Your task to perform on an android device: Add apple airpods to the cart on amazon Image 0: 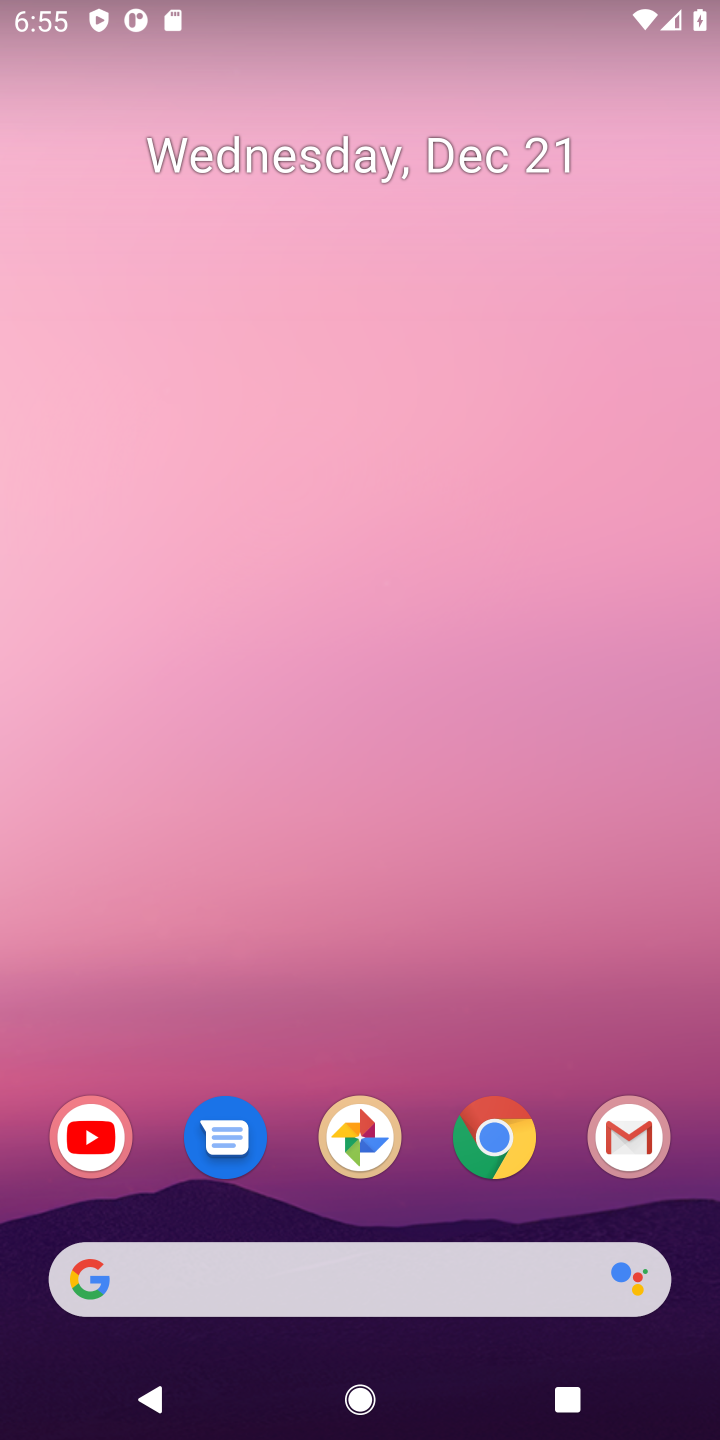
Step 0: click (494, 1147)
Your task to perform on an android device: Add apple airpods to the cart on amazon Image 1: 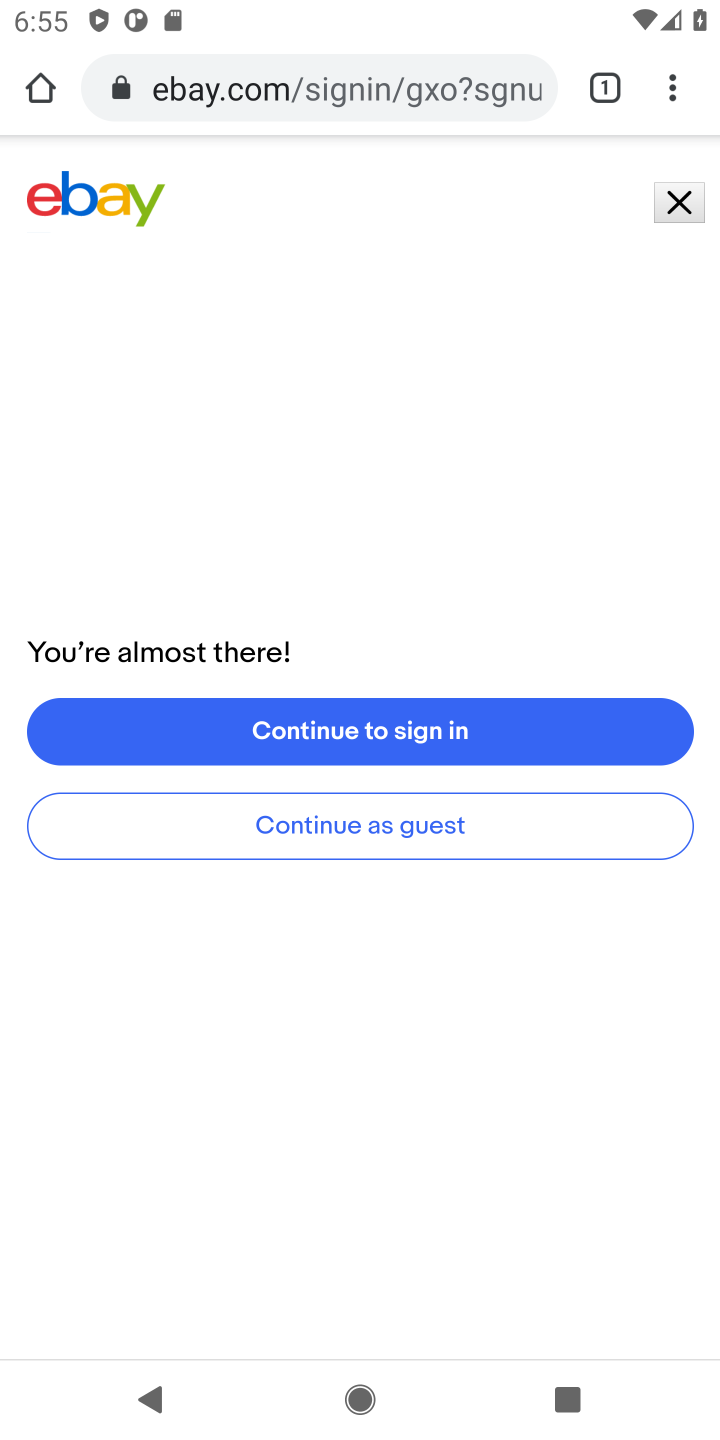
Step 1: click (279, 98)
Your task to perform on an android device: Add apple airpods to the cart on amazon Image 2: 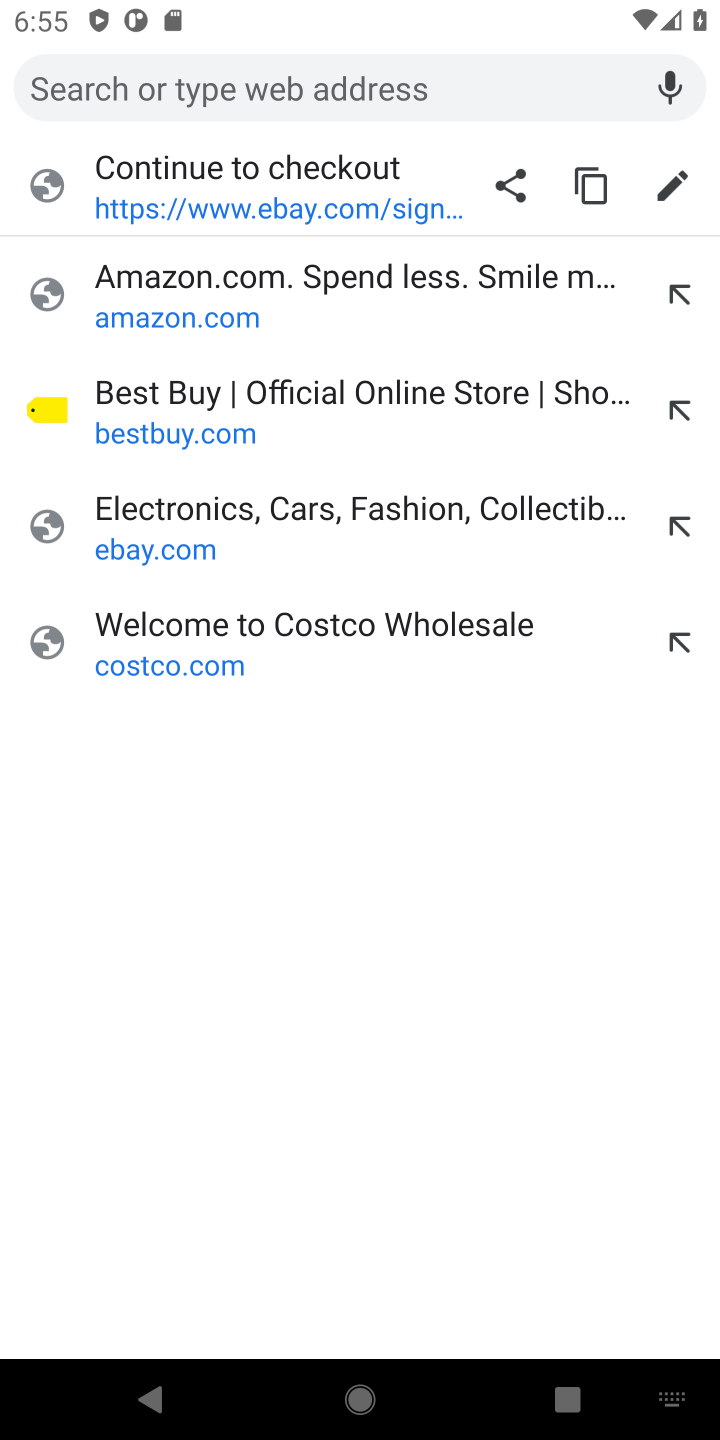
Step 2: click (155, 320)
Your task to perform on an android device: Add apple airpods to the cart on amazon Image 3: 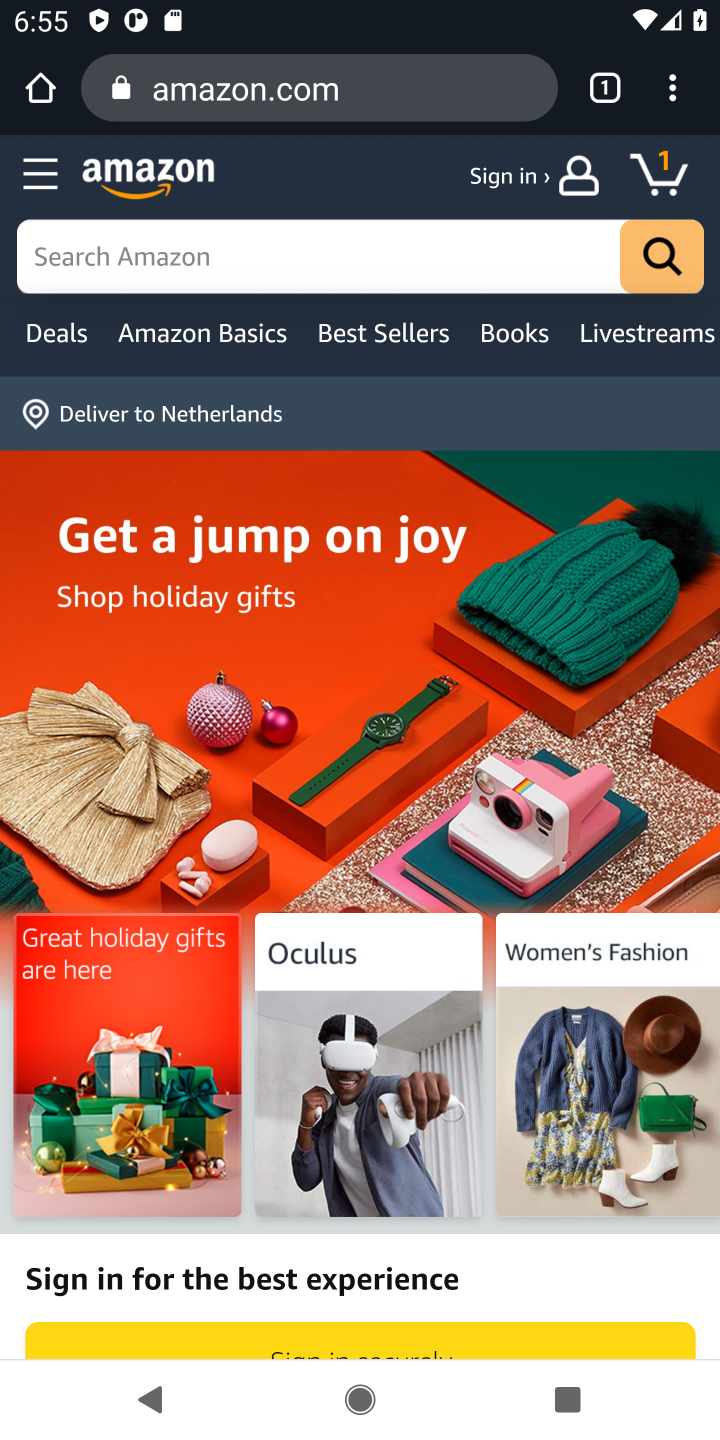
Step 3: click (189, 272)
Your task to perform on an android device: Add apple airpods to the cart on amazon Image 4: 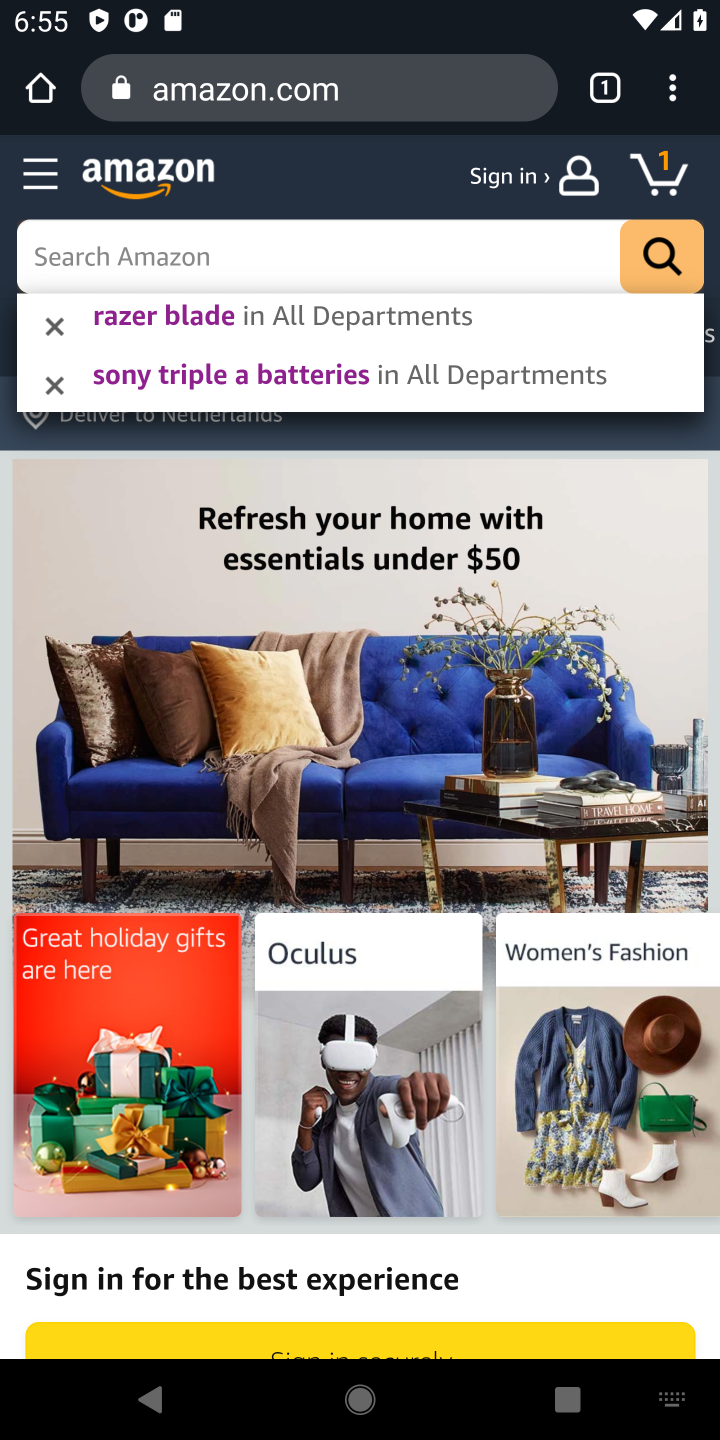
Step 4: type "apple airpods"
Your task to perform on an android device: Add apple airpods to the cart on amazon Image 5: 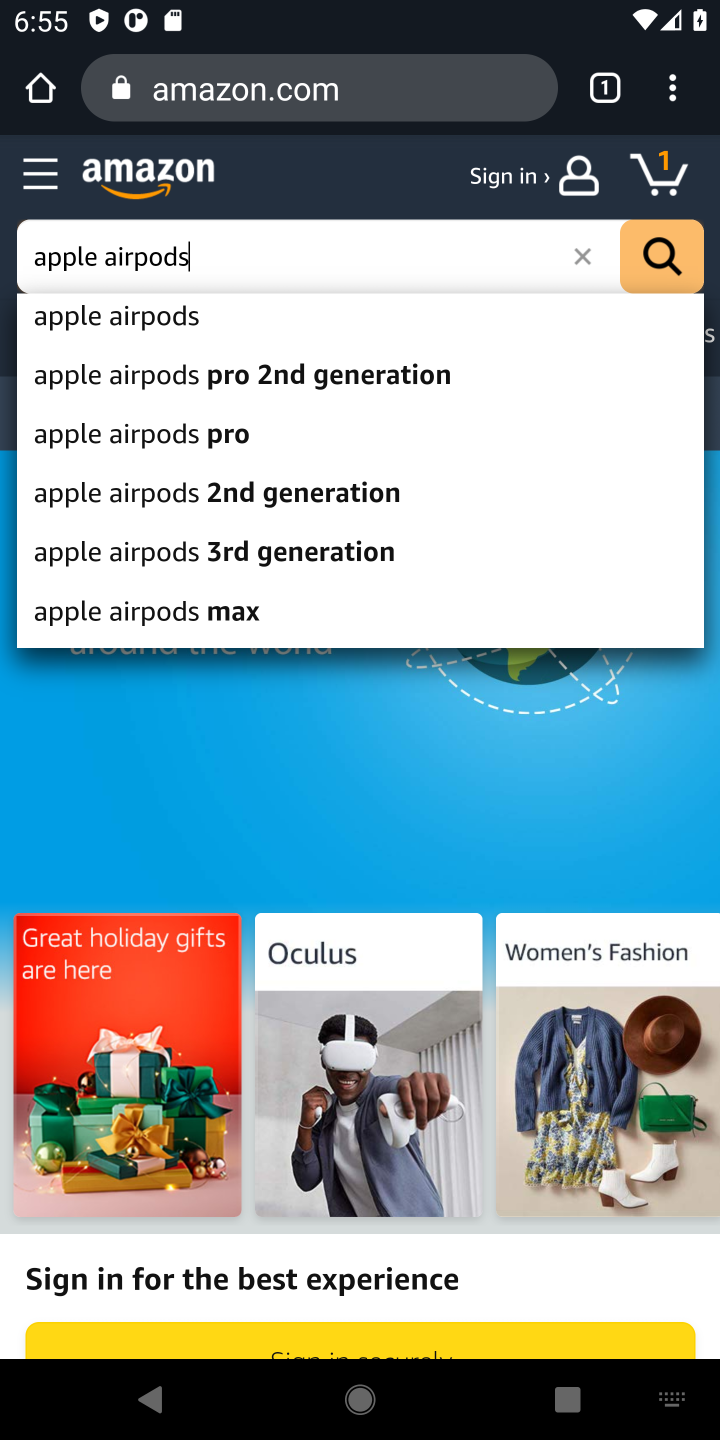
Step 5: click (113, 325)
Your task to perform on an android device: Add apple airpods to the cart on amazon Image 6: 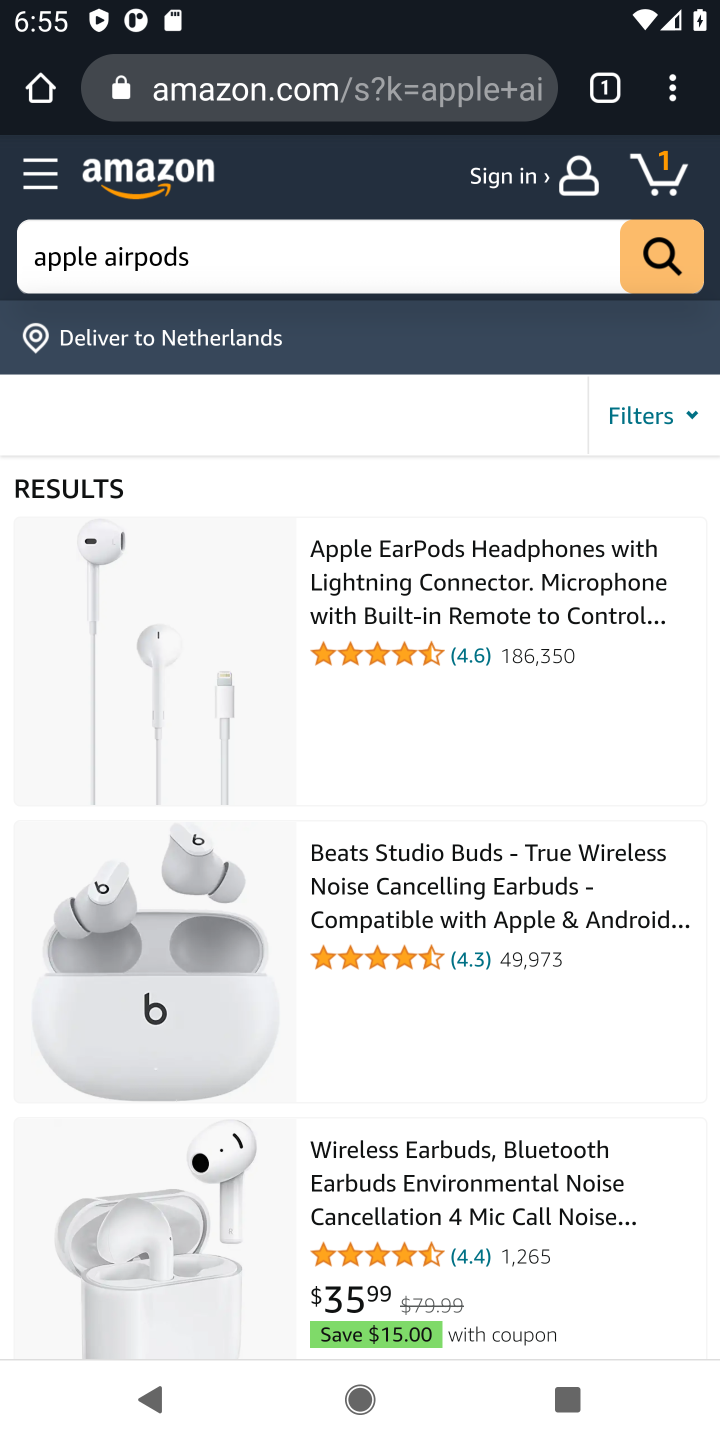
Step 6: drag from (271, 1031) to (273, 543)
Your task to perform on an android device: Add apple airpods to the cart on amazon Image 7: 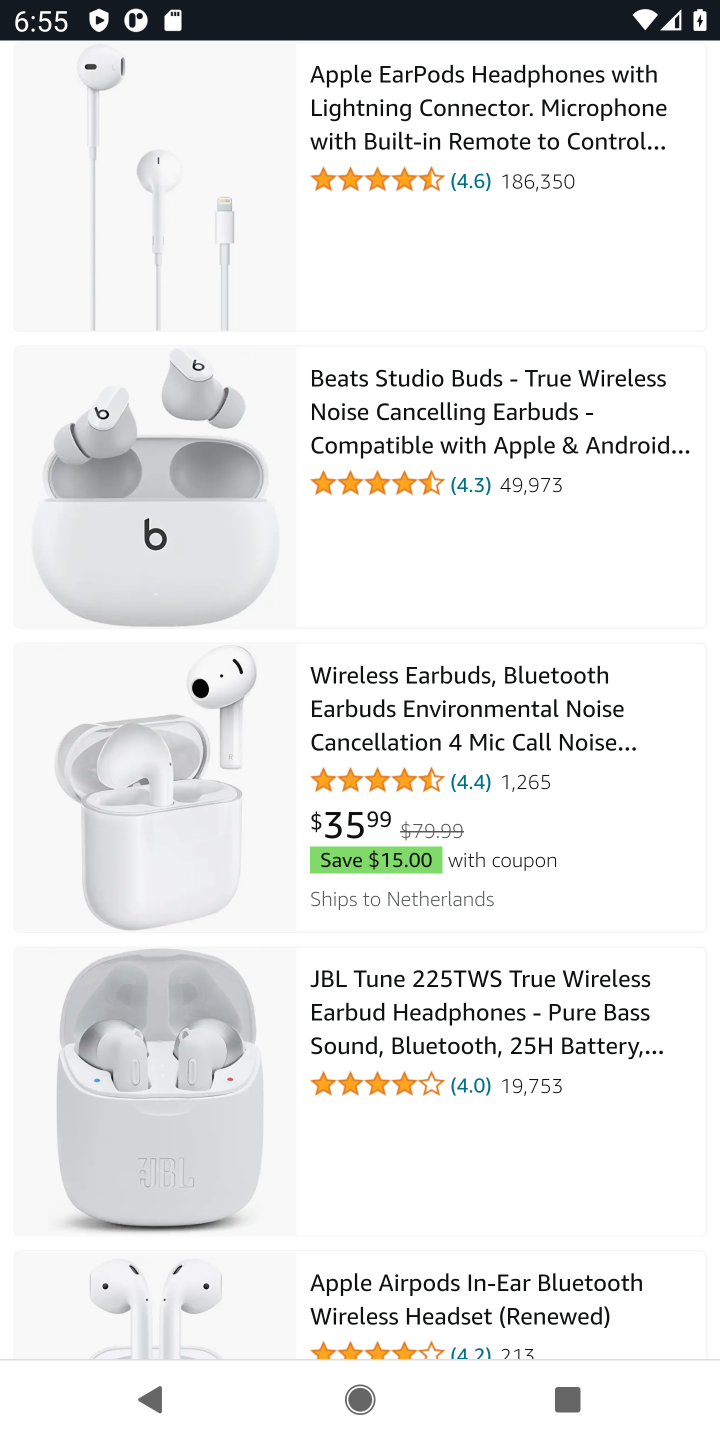
Step 7: drag from (269, 987) to (297, 532)
Your task to perform on an android device: Add apple airpods to the cart on amazon Image 8: 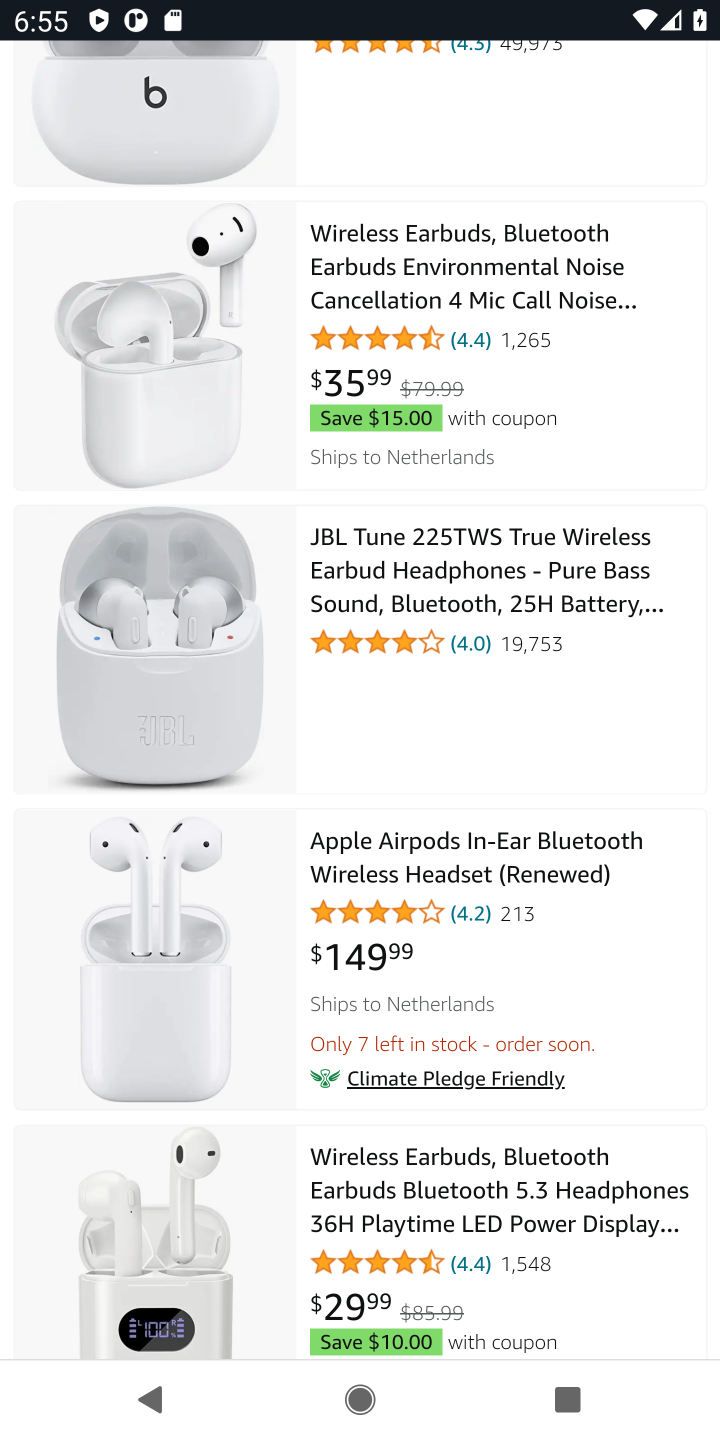
Step 8: click (386, 884)
Your task to perform on an android device: Add apple airpods to the cart on amazon Image 9: 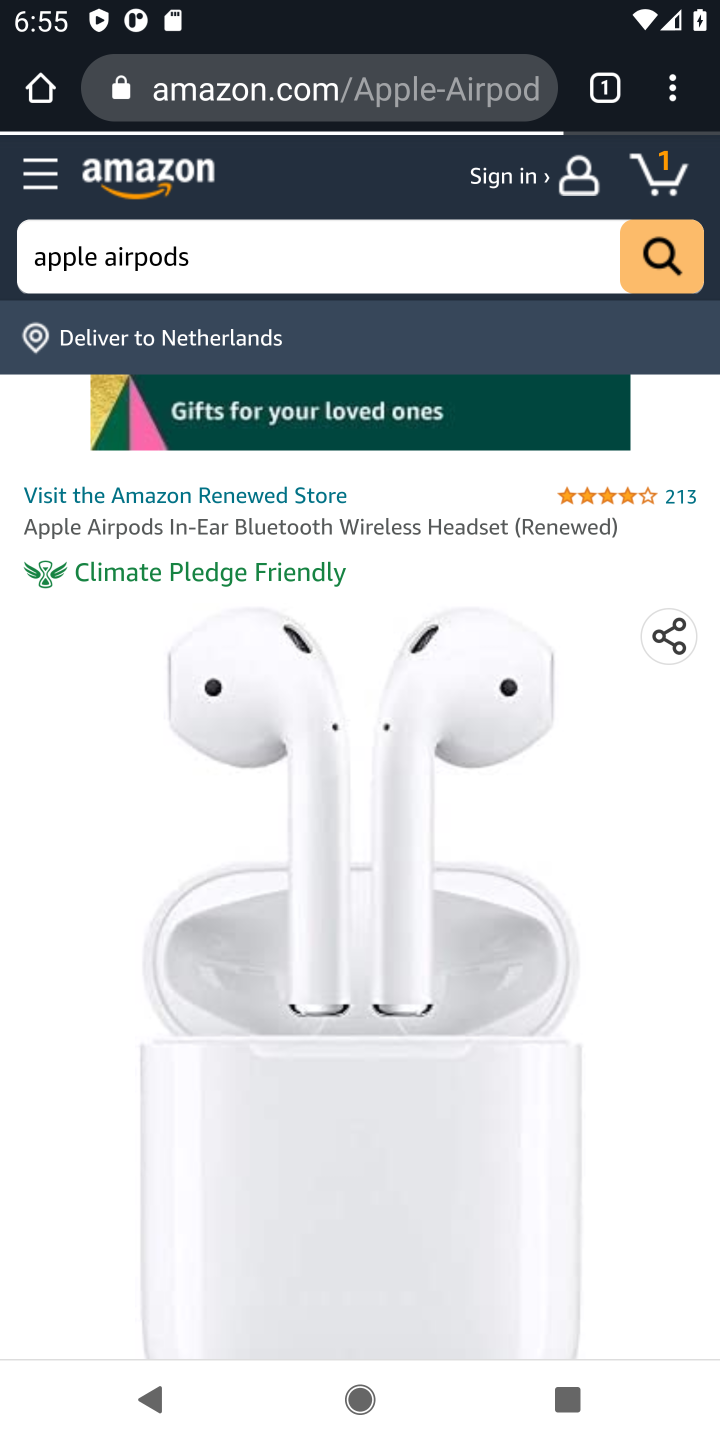
Step 9: drag from (372, 981) to (331, 342)
Your task to perform on an android device: Add apple airpods to the cart on amazon Image 10: 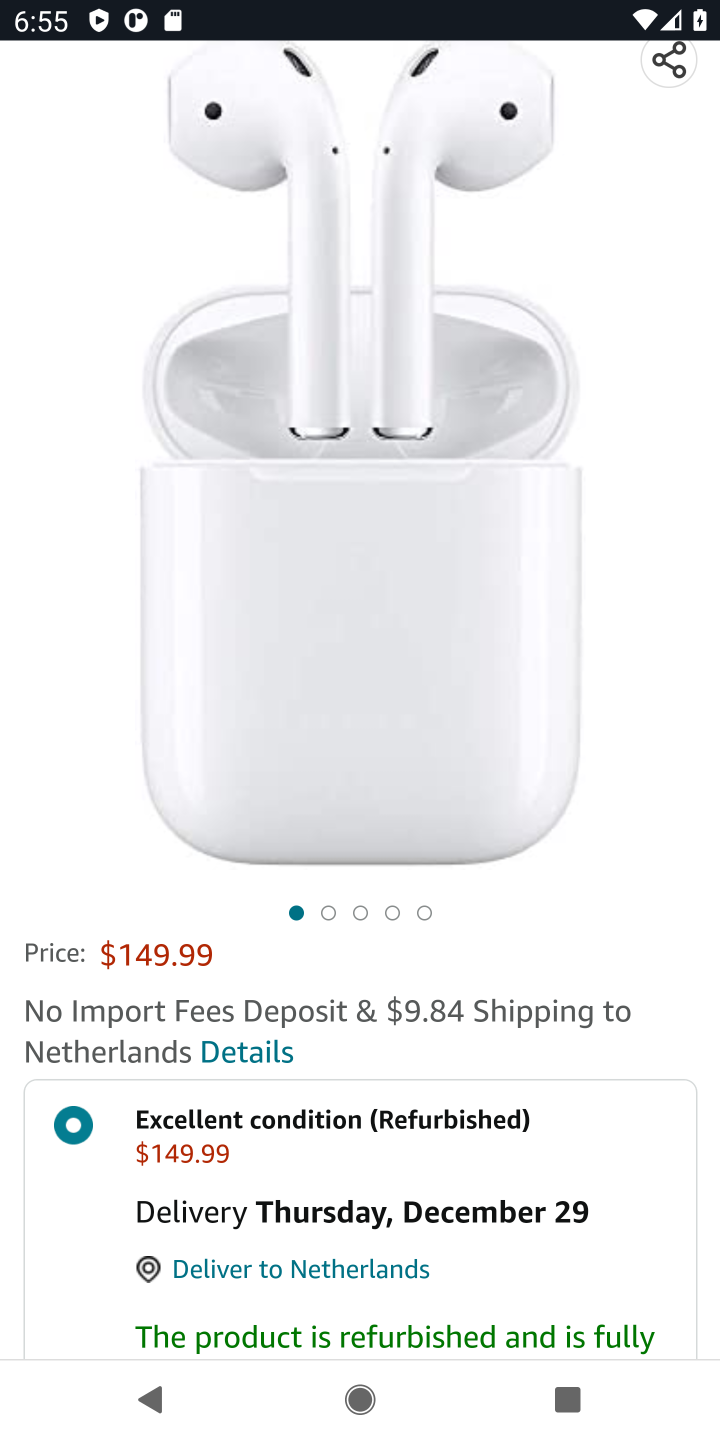
Step 10: drag from (360, 1096) to (343, 455)
Your task to perform on an android device: Add apple airpods to the cart on amazon Image 11: 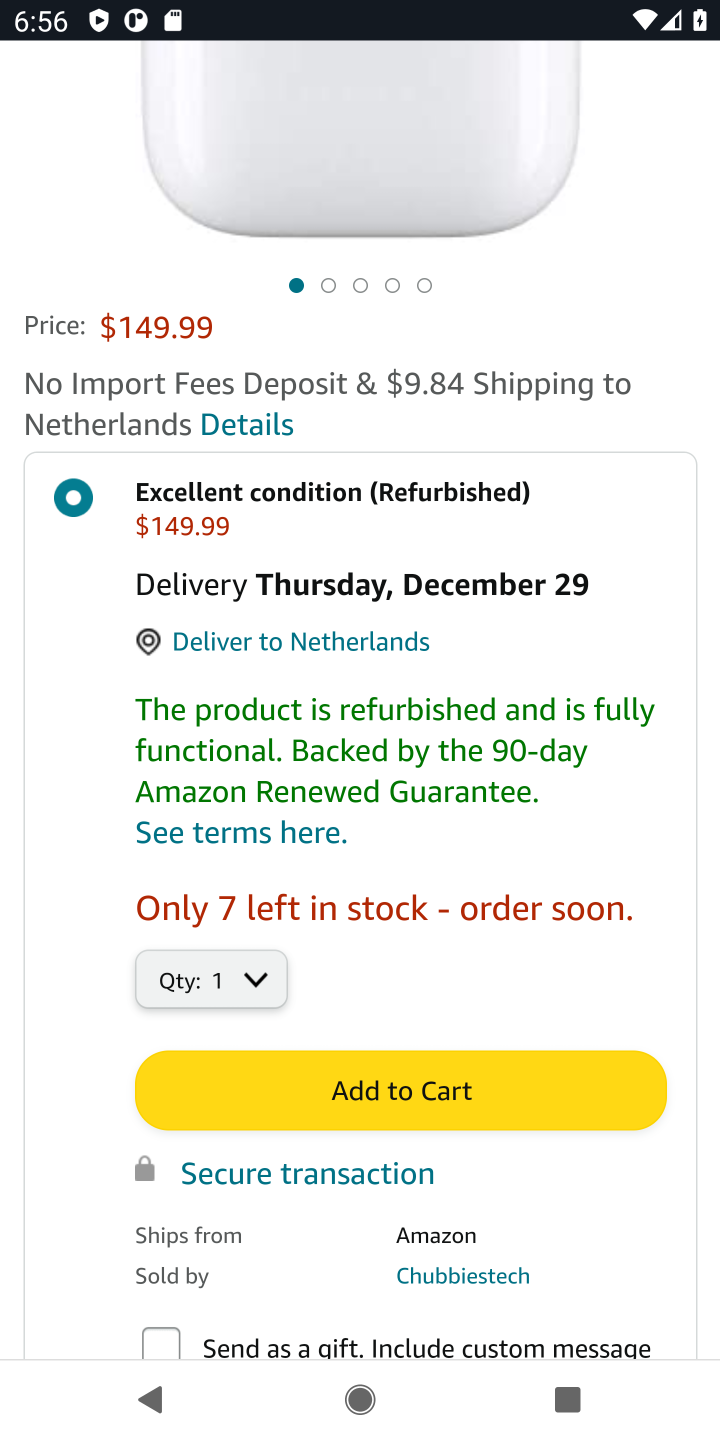
Step 11: click (331, 1096)
Your task to perform on an android device: Add apple airpods to the cart on amazon Image 12: 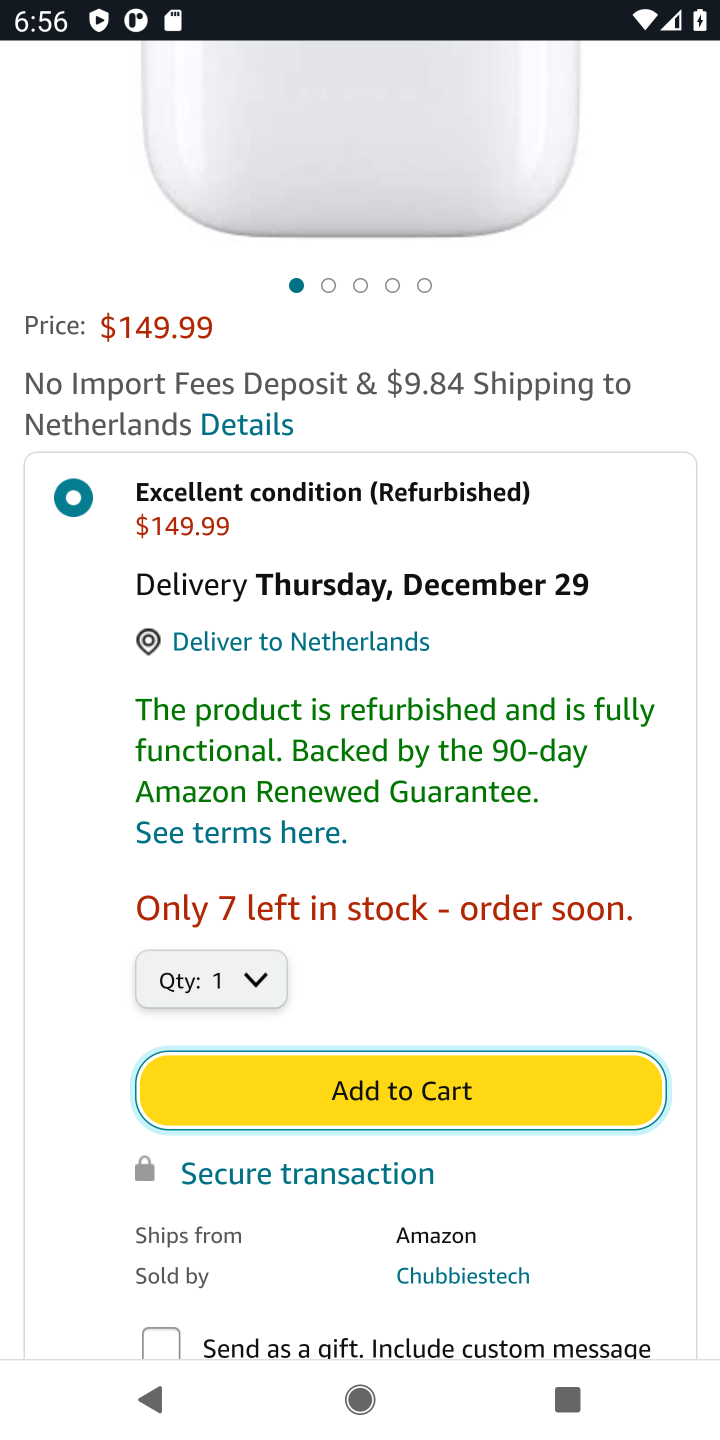
Step 12: click (396, 1083)
Your task to perform on an android device: Add apple airpods to the cart on amazon Image 13: 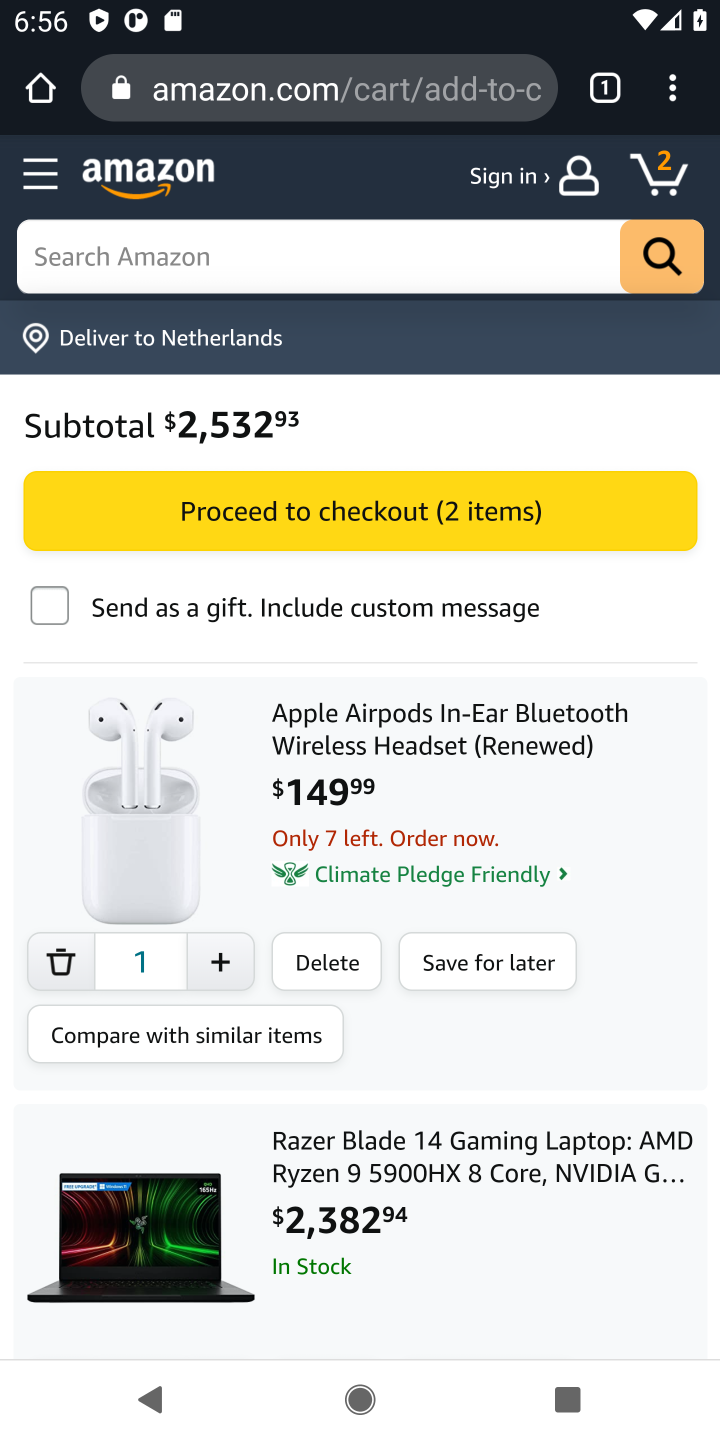
Step 13: task complete